Your task to perform on an android device: Go to internet settings Image 0: 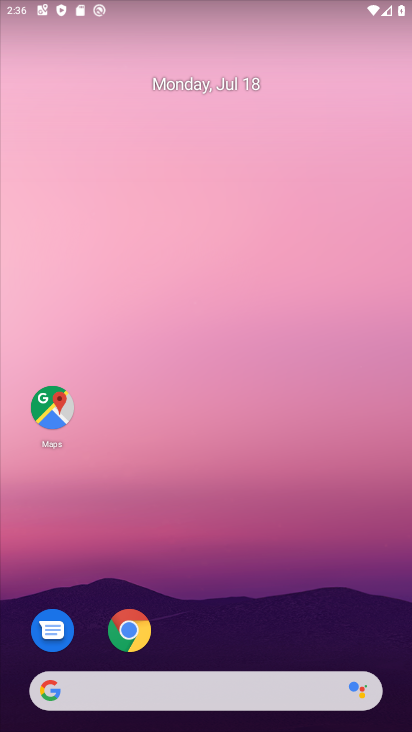
Step 0: drag from (206, 662) to (316, 63)
Your task to perform on an android device: Go to internet settings Image 1: 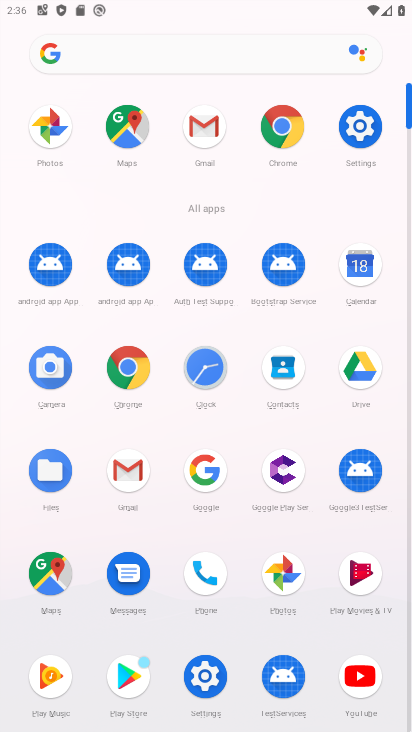
Step 1: click (200, 667)
Your task to perform on an android device: Go to internet settings Image 2: 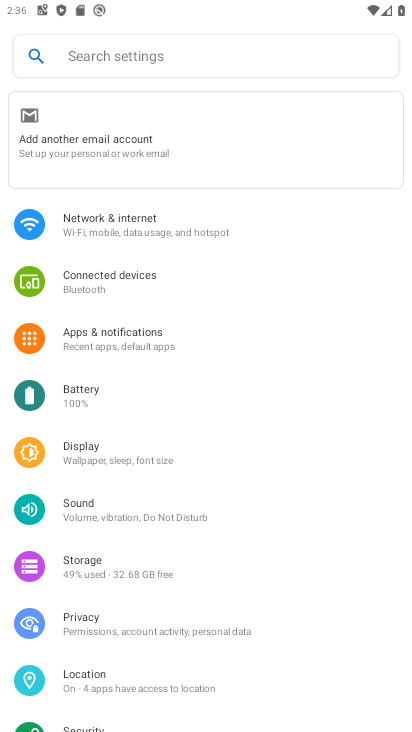
Step 2: click (157, 228)
Your task to perform on an android device: Go to internet settings Image 3: 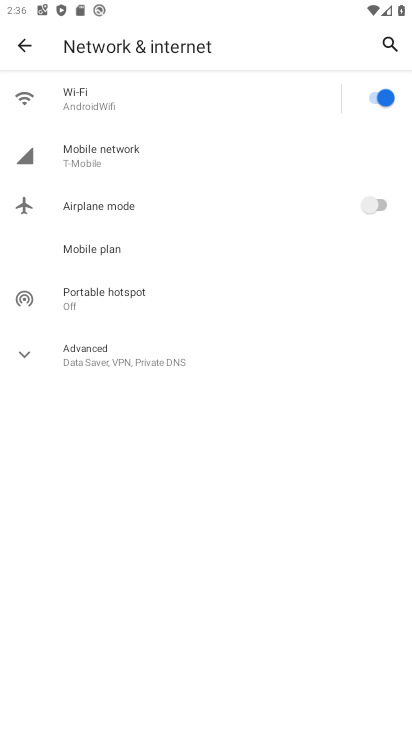
Step 3: click (149, 156)
Your task to perform on an android device: Go to internet settings Image 4: 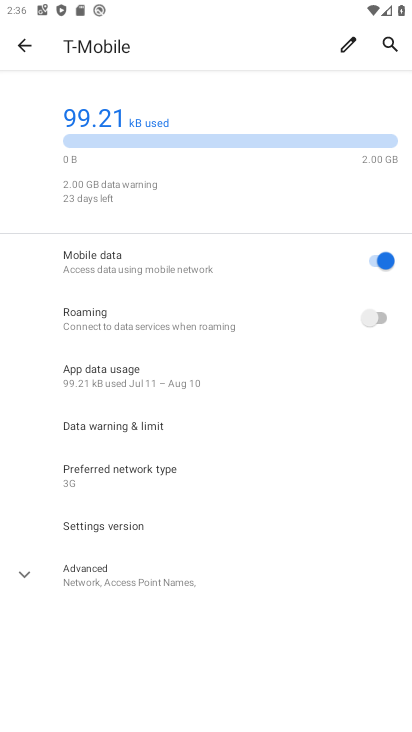
Step 4: task complete